Your task to perform on an android device: turn on wifi Image 0: 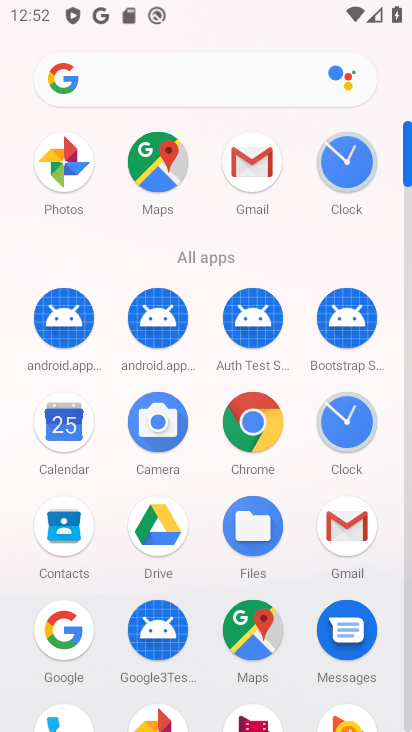
Step 0: press home button
Your task to perform on an android device: turn on wifi Image 1: 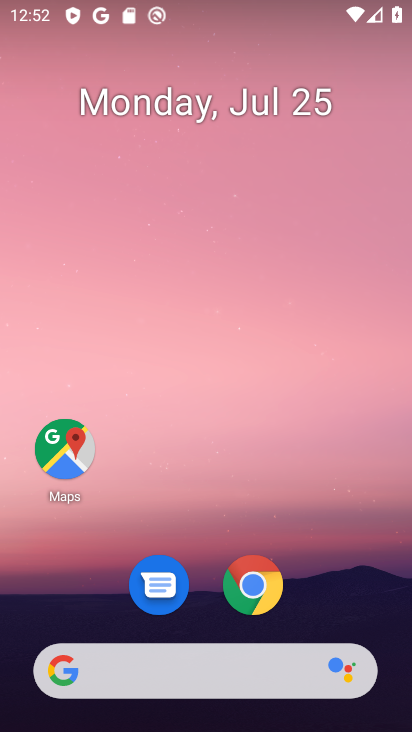
Step 1: drag from (200, 662) to (286, 161)
Your task to perform on an android device: turn on wifi Image 2: 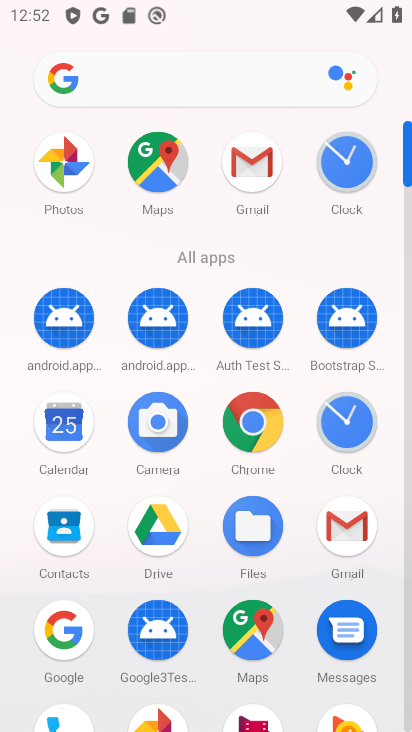
Step 2: drag from (205, 553) to (368, 153)
Your task to perform on an android device: turn on wifi Image 3: 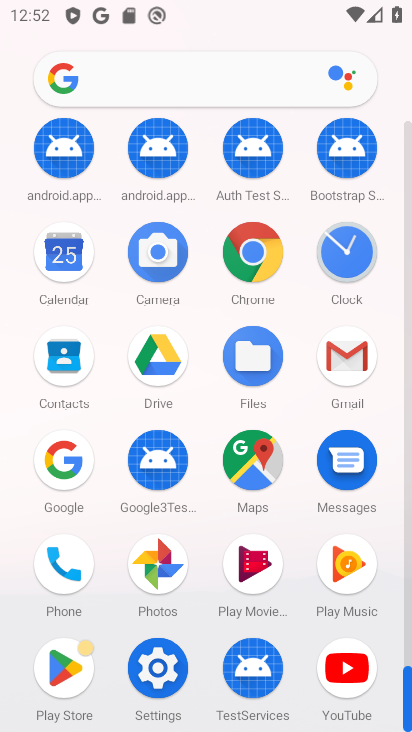
Step 3: click (158, 667)
Your task to perform on an android device: turn on wifi Image 4: 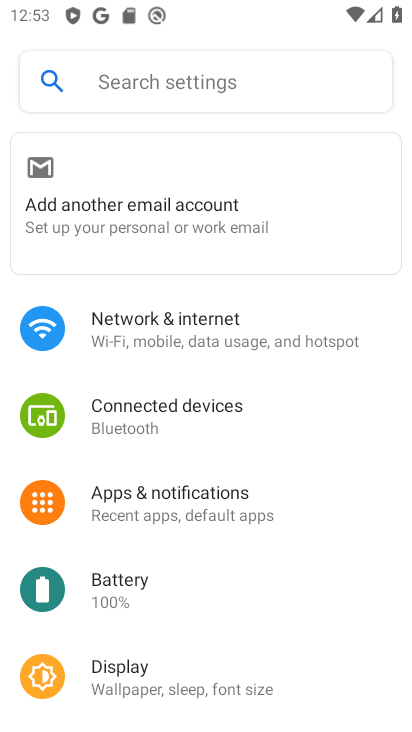
Step 4: click (216, 323)
Your task to perform on an android device: turn on wifi Image 5: 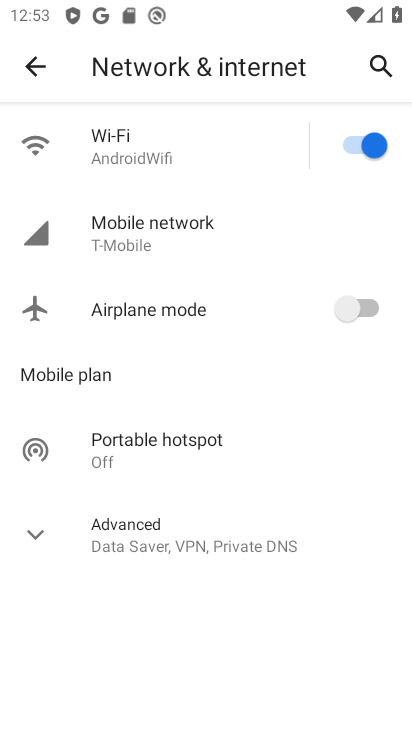
Step 5: task complete